Your task to perform on an android device: find snoozed emails in the gmail app Image 0: 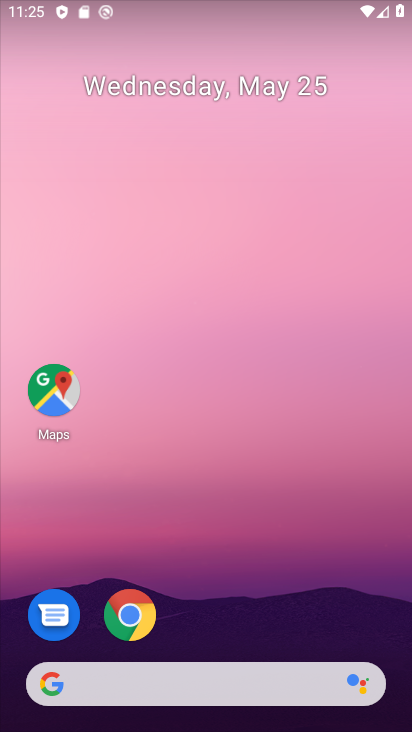
Step 0: drag from (337, 606) to (265, 35)
Your task to perform on an android device: find snoozed emails in the gmail app Image 1: 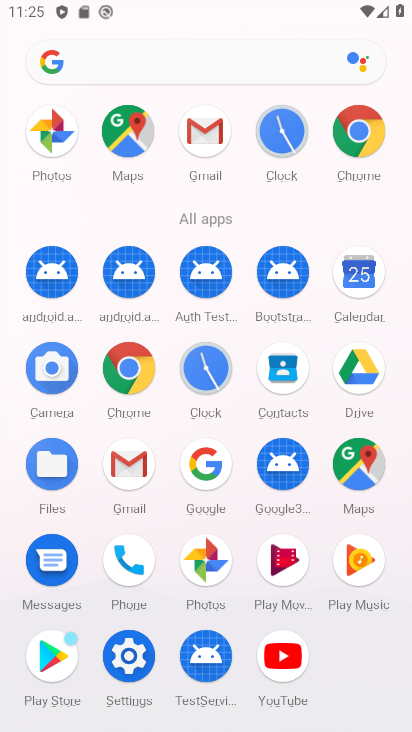
Step 1: click (130, 449)
Your task to perform on an android device: find snoozed emails in the gmail app Image 2: 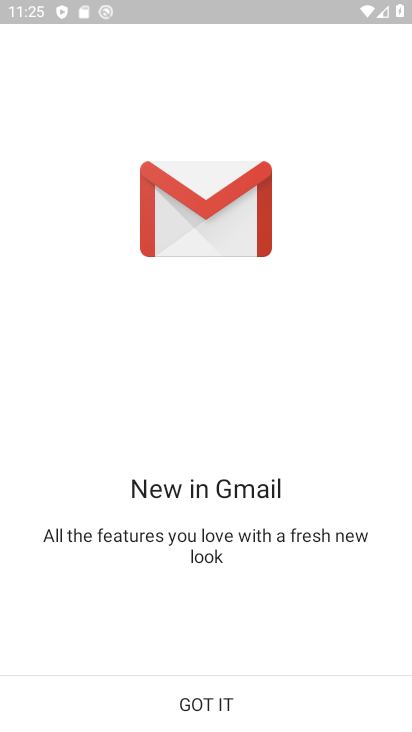
Step 2: click (186, 701)
Your task to perform on an android device: find snoozed emails in the gmail app Image 3: 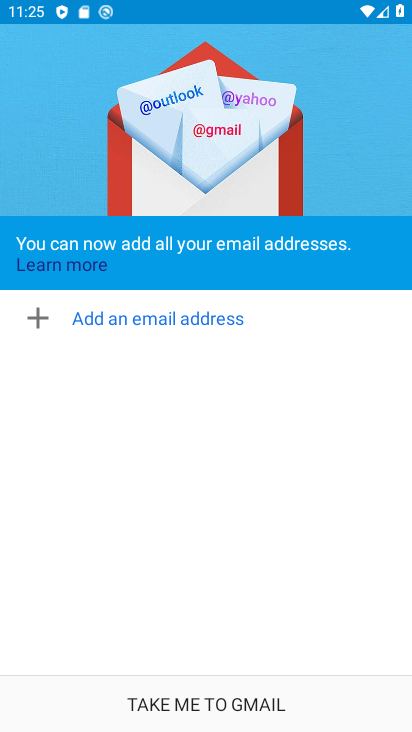
Step 3: click (186, 701)
Your task to perform on an android device: find snoozed emails in the gmail app Image 4: 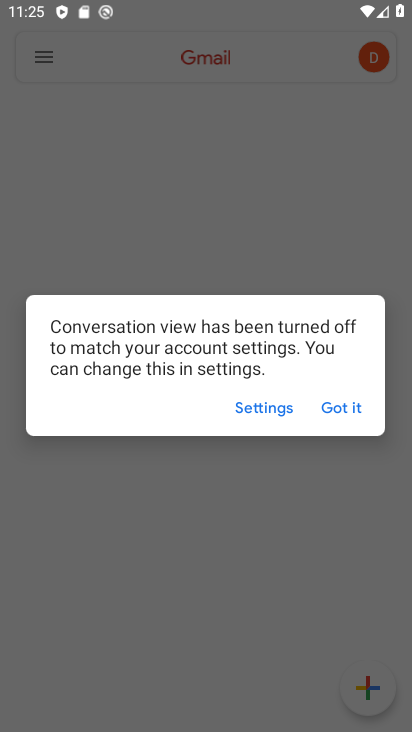
Step 4: click (348, 406)
Your task to perform on an android device: find snoozed emails in the gmail app Image 5: 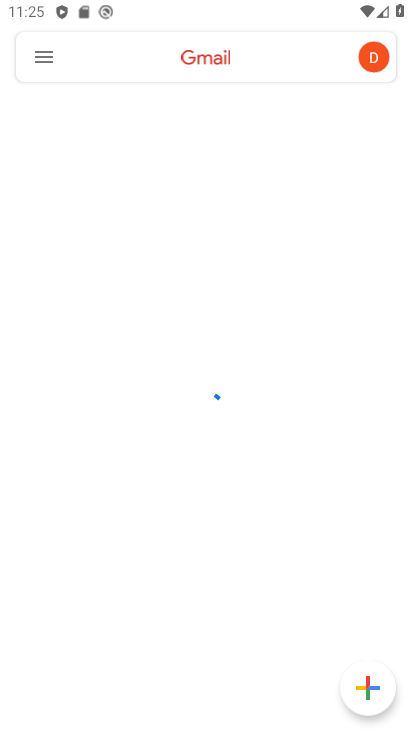
Step 5: click (47, 55)
Your task to perform on an android device: find snoozed emails in the gmail app Image 6: 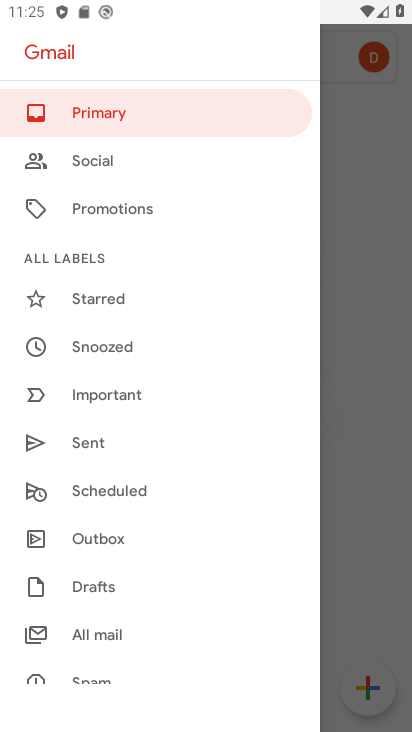
Step 6: click (131, 340)
Your task to perform on an android device: find snoozed emails in the gmail app Image 7: 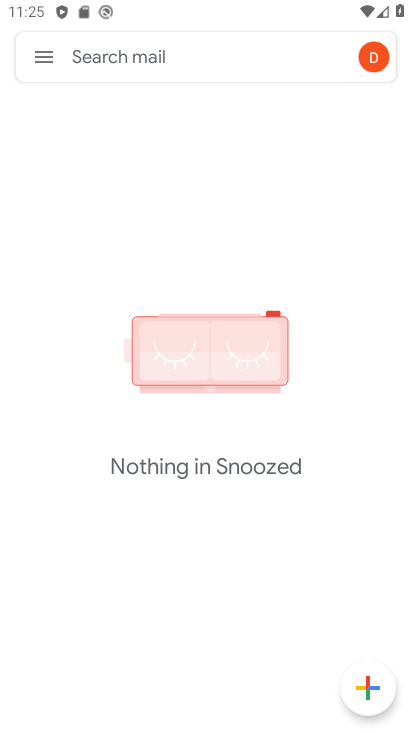
Step 7: task complete